Your task to perform on an android device: uninstall "Instagram" Image 0: 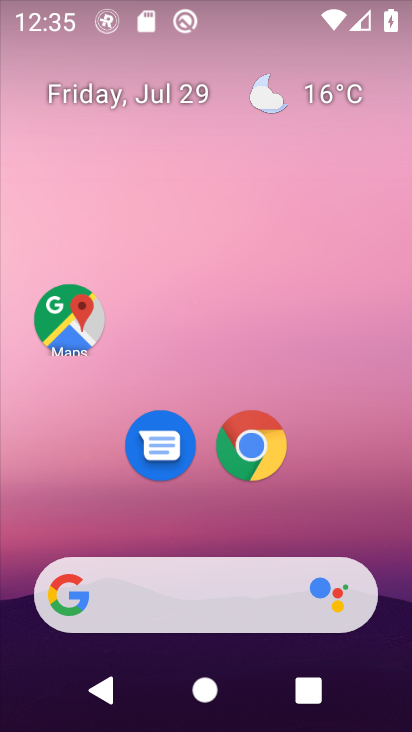
Step 0: press home button
Your task to perform on an android device: uninstall "Instagram" Image 1: 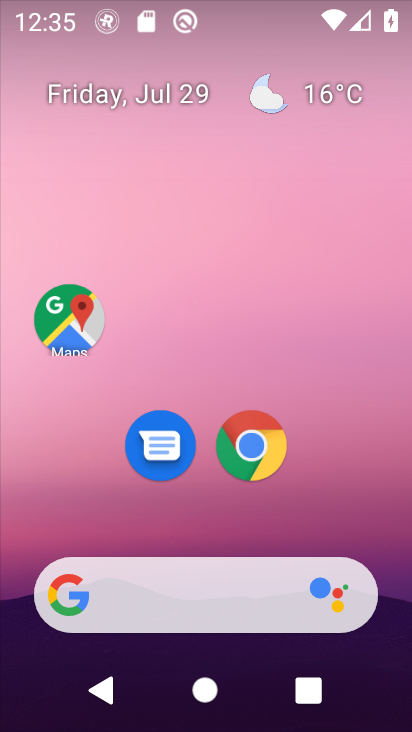
Step 1: press home button
Your task to perform on an android device: uninstall "Instagram" Image 2: 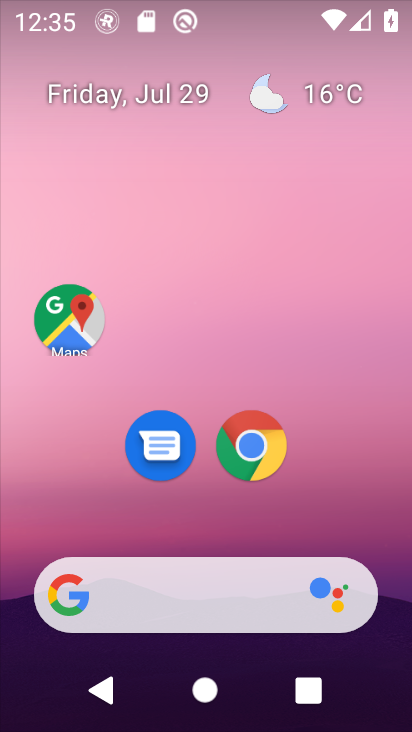
Step 2: drag from (317, 470) to (323, 145)
Your task to perform on an android device: uninstall "Instagram" Image 3: 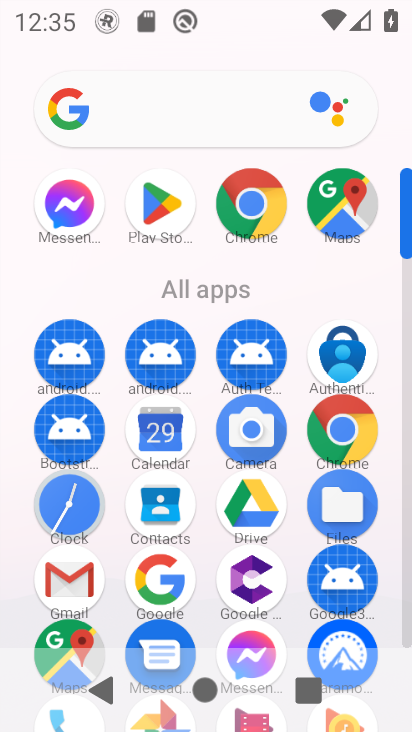
Step 3: click (406, 640)
Your task to perform on an android device: uninstall "Instagram" Image 4: 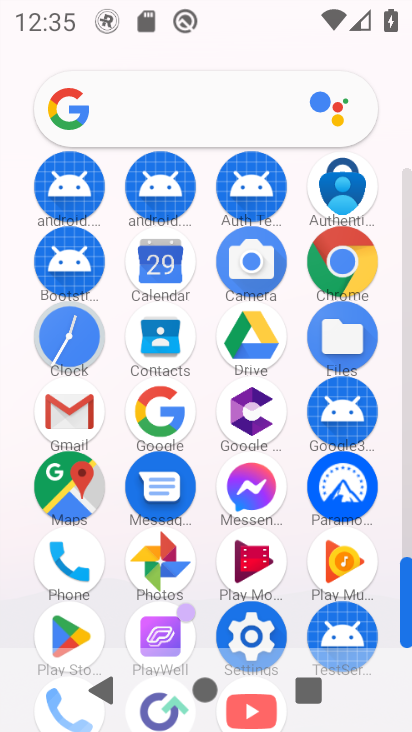
Step 4: click (406, 640)
Your task to perform on an android device: uninstall "Instagram" Image 5: 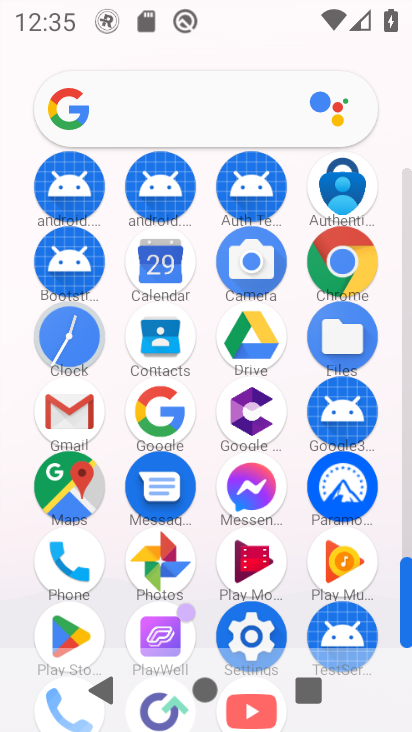
Step 5: click (406, 640)
Your task to perform on an android device: uninstall "Instagram" Image 6: 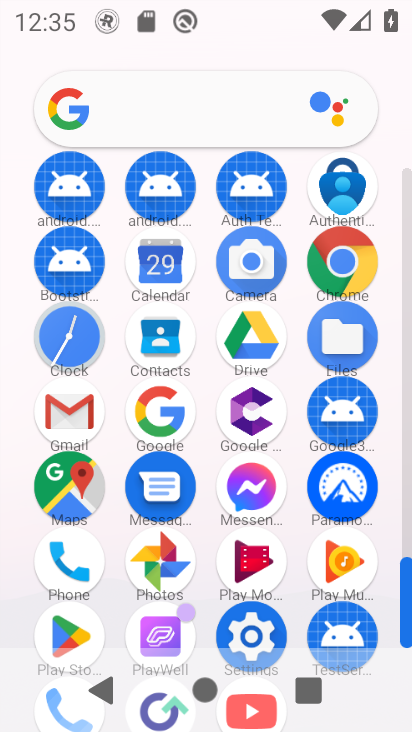
Step 6: drag from (406, 641) to (409, 700)
Your task to perform on an android device: uninstall "Instagram" Image 7: 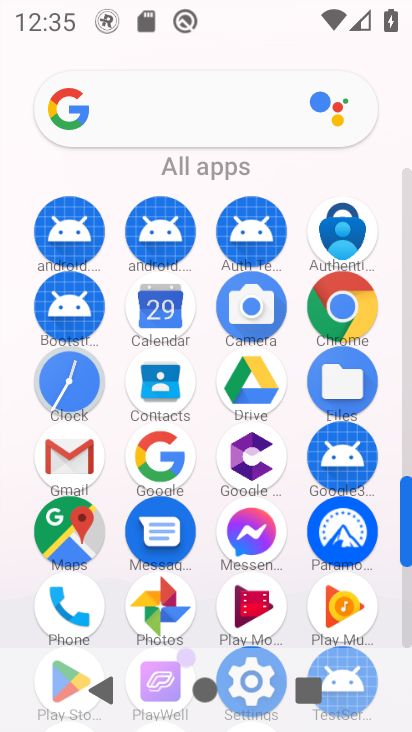
Step 7: drag from (408, 546) to (404, 679)
Your task to perform on an android device: uninstall "Instagram" Image 8: 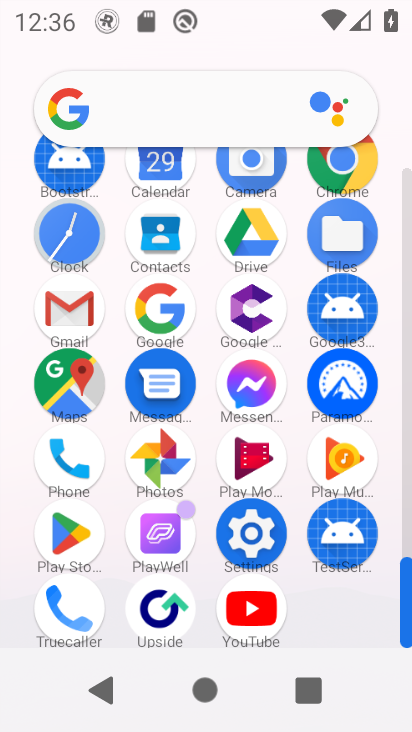
Step 8: click (72, 528)
Your task to perform on an android device: uninstall "Instagram" Image 9: 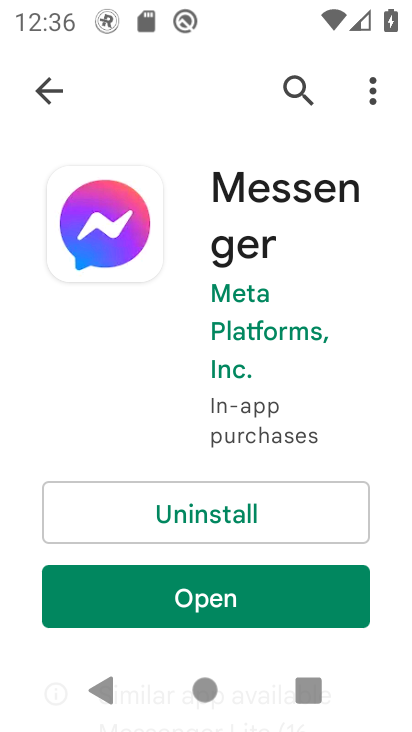
Step 9: click (299, 83)
Your task to perform on an android device: uninstall "Instagram" Image 10: 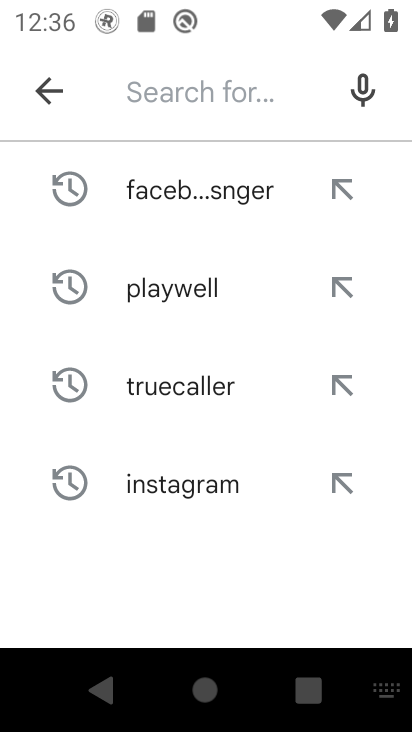
Step 10: click (134, 473)
Your task to perform on an android device: uninstall "Instagram" Image 11: 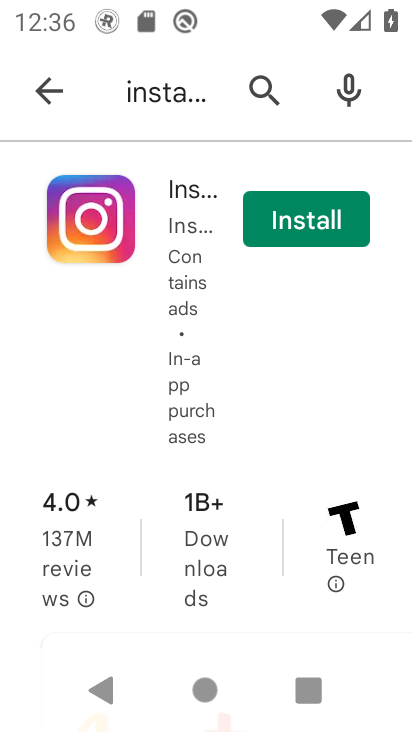
Step 11: task complete